Your task to perform on an android device: change the clock style Image 0: 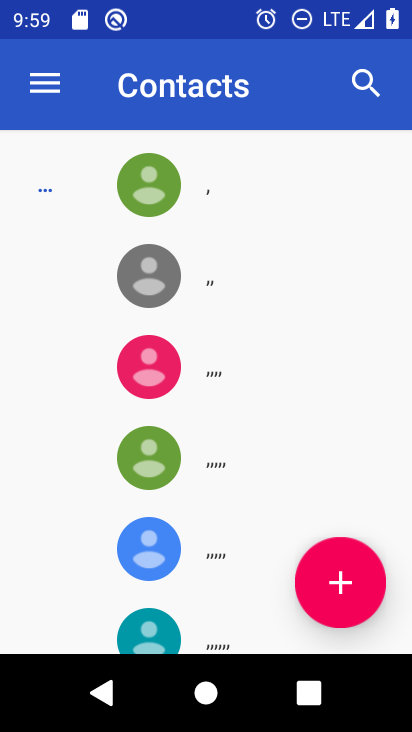
Step 0: press home button
Your task to perform on an android device: change the clock style Image 1: 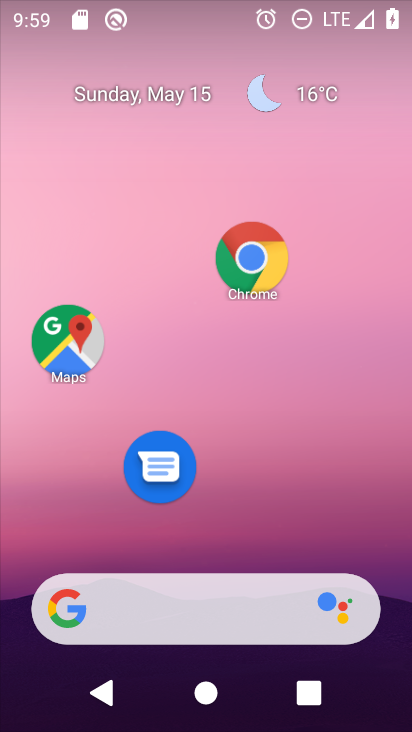
Step 1: drag from (239, 553) to (336, 53)
Your task to perform on an android device: change the clock style Image 2: 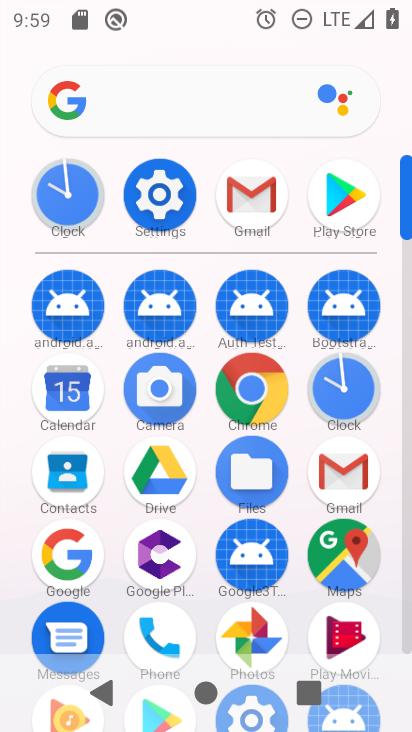
Step 2: click (360, 390)
Your task to perform on an android device: change the clock style Image 3: 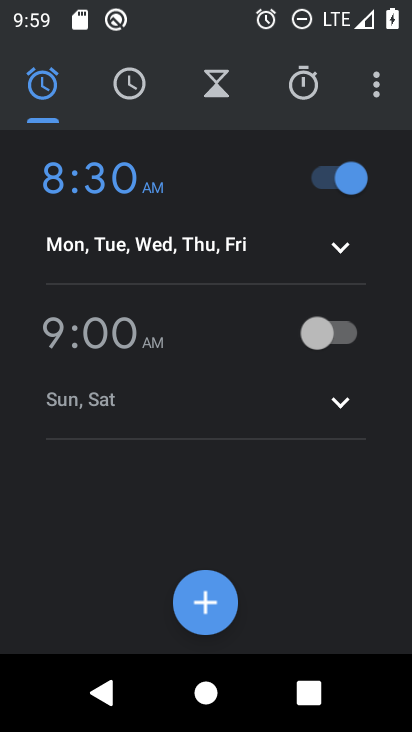
Step 3: click (381, 61)
Your task to perform on an android device: change the clock style Image 4: 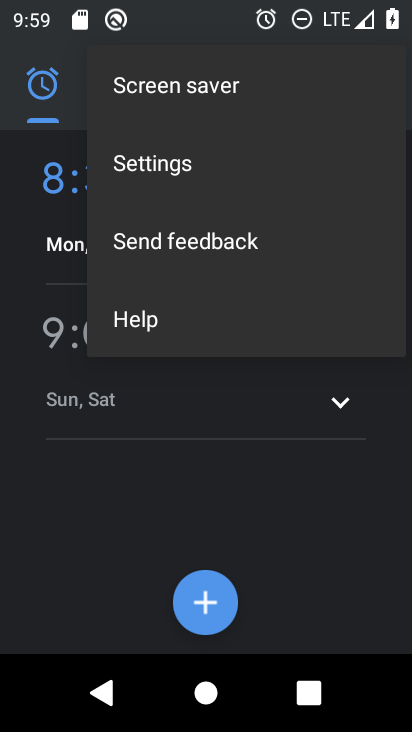
Step 4: click (206, 167)
Your task to perform on an android device: change the clock style Image 5: 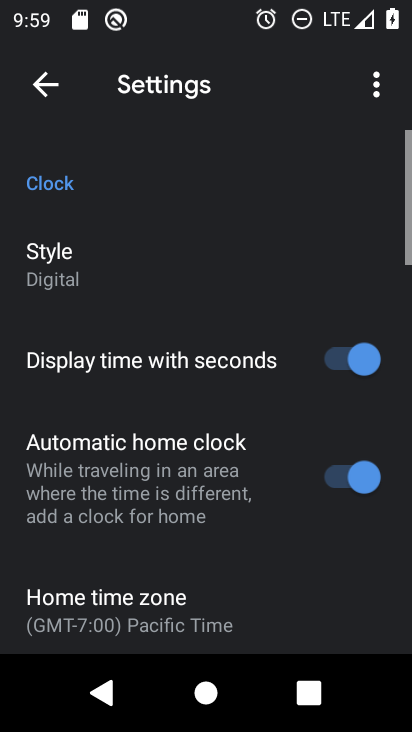
Step 5: click (120, 257)
Your task to perform on an android device: change the clock style Image 6: 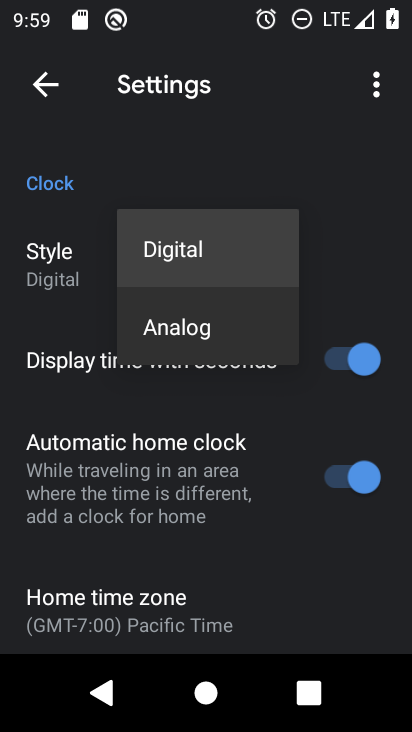
Step 6: click (157, 298)
Your task to perform on an android device: change the clock style Image 7: 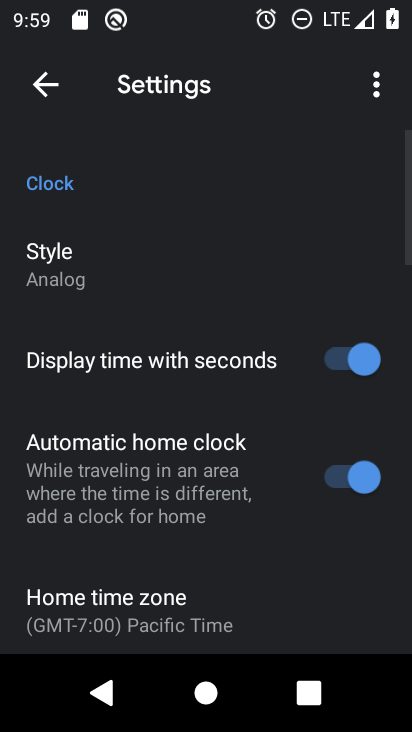
Step 7: task complete